Your task to perform on an android device: turn on priority inbox in the gmail app Image 0: 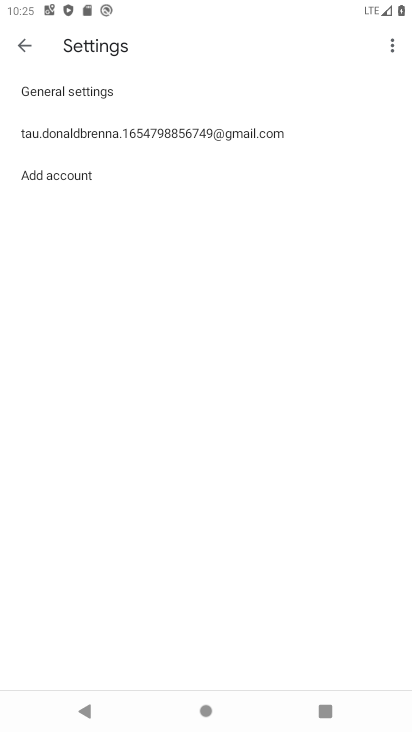
Step 0: press home button
Your task to perform on an android device: turn on priority inbox in the gmail app Image 1: 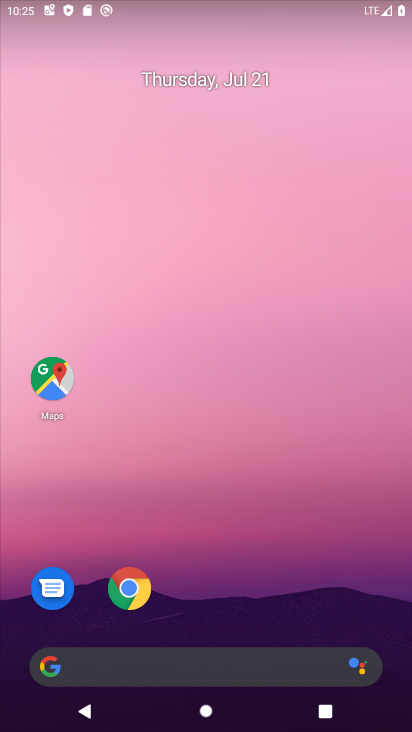
Step 1: drag from (394, 681) to (292, 111)
Your task to perform on an android device: turn on priority inbox in the gmail app Image 2: 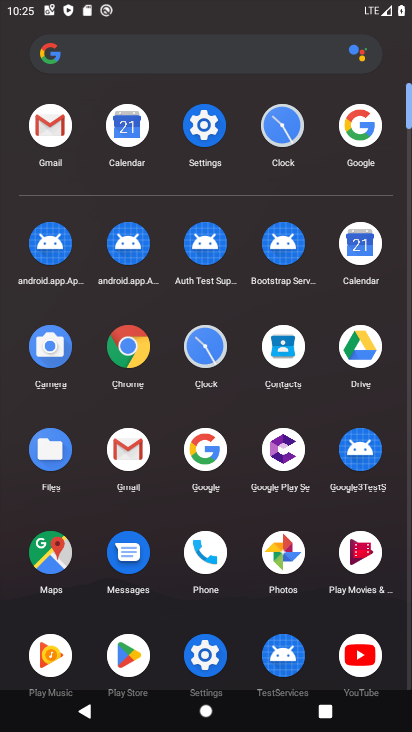
Step 2: click (131, 456)
Your task to perform on an android device: turn on priority inbox in the gmail app Image 3: 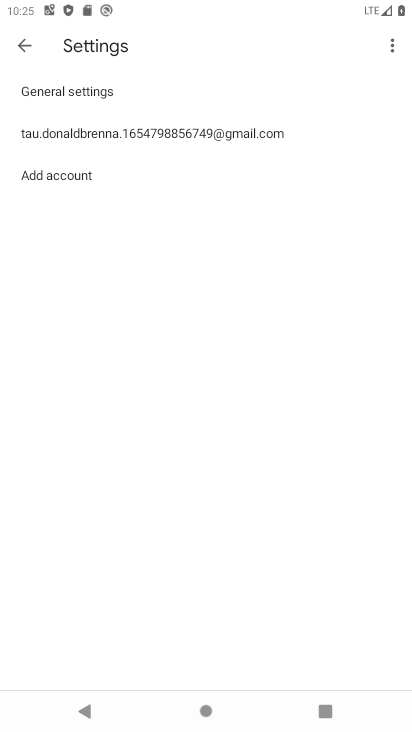
Step 3: click (91, 128)
Your task to perform on an android device: turn on priority inbox in the gmail app Image 4: 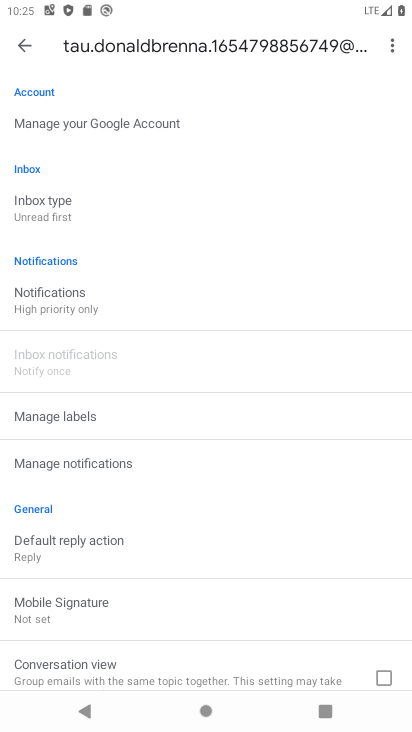
Step 4: click (37, 203)
Your task to perform on an android device: turn on priority inbox in the gmail app Image 5: 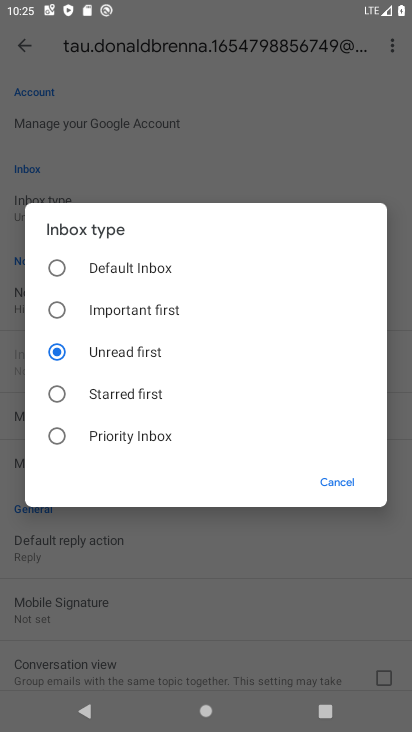
Step 5: click (56, 431)
Your task to perform on an android device: turn on priority inbox in the gmail app Image 6: 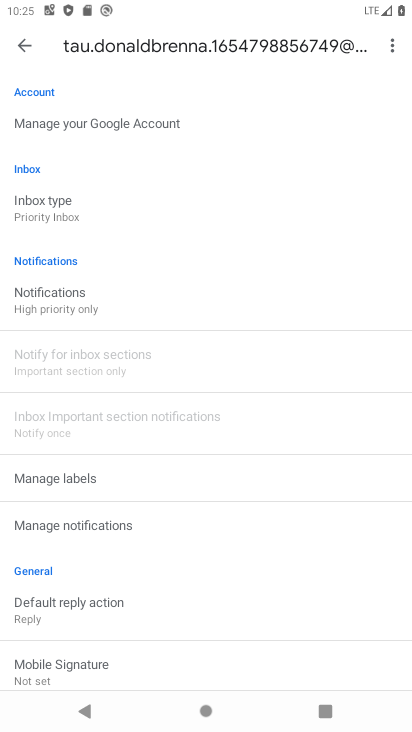
Step 6: task complete